Your task to perform on an android device: Go to Google maps Image 0: 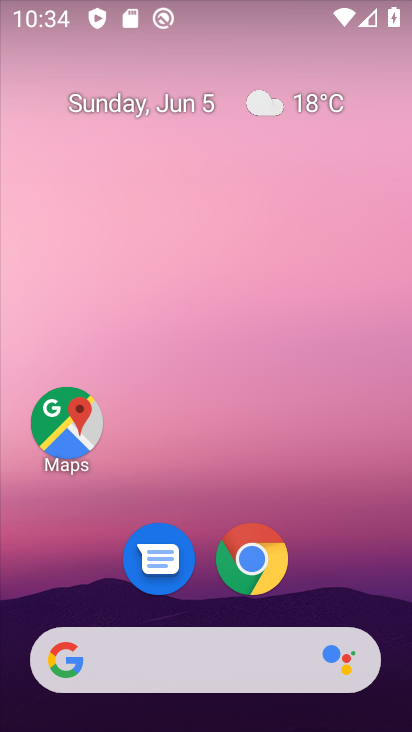
Step 0: click (324, 549)
Your task to perform on an android device: Go to Google maps Image 1: 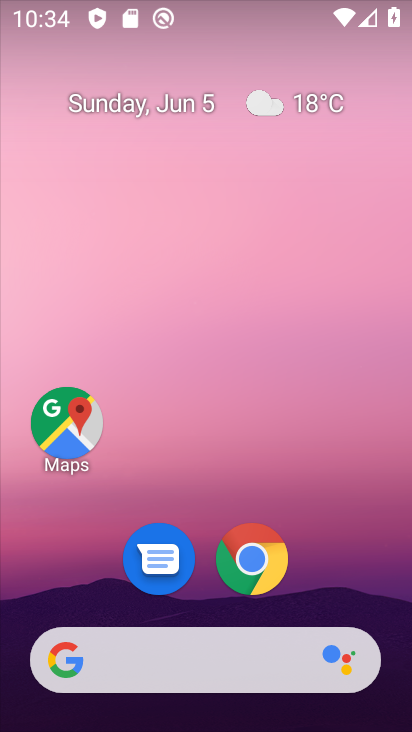
Step 1: click (69, 424)
Your task to perform on an android device: Go to Google maps Image 2: 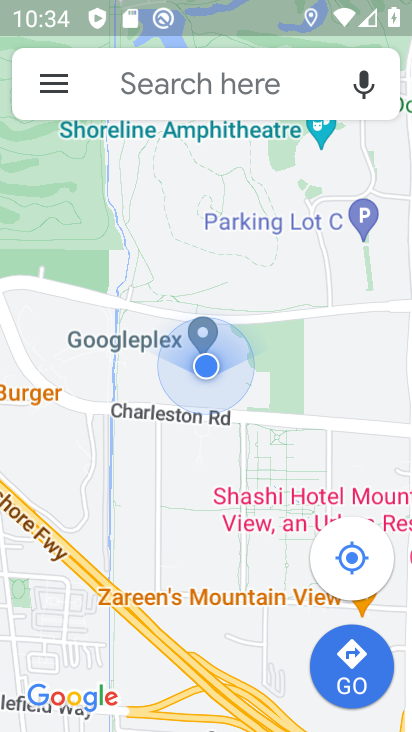
Step 2: task complete